Your task to perform on an android device: Open the calendar app, open the side menu, and click the "Day" option Image 0: 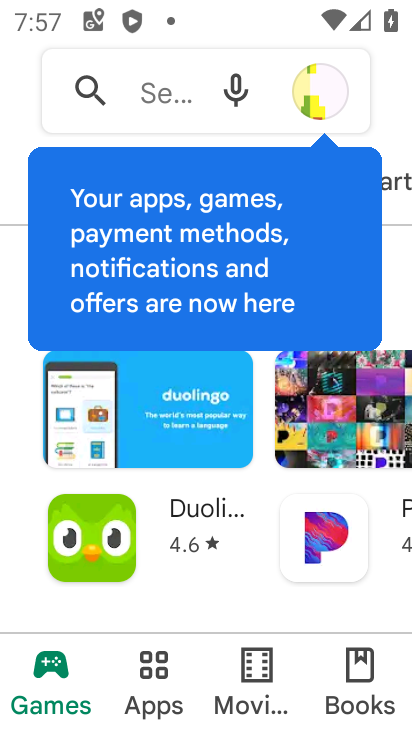
Step 0: press home button
Your task to perform on an android device: Open the calendar app, open the side menu, and click the "Day" option Image 1: 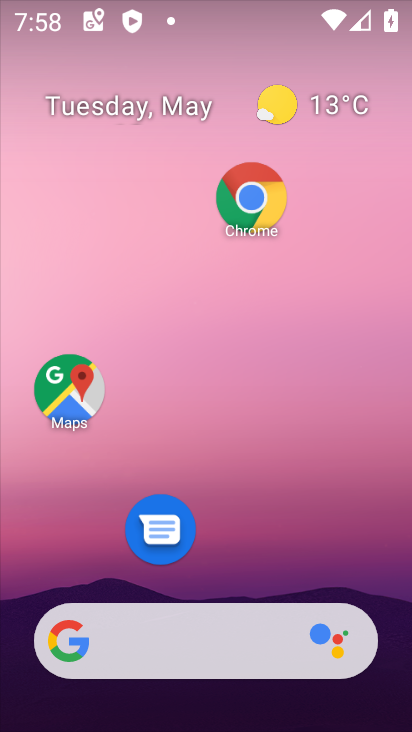
Step 1: drag from (314, 545) to (313, 33)
Your task to perform on an android device: Open the calendar app, open the side menu, and click the "Day" option Image 2: 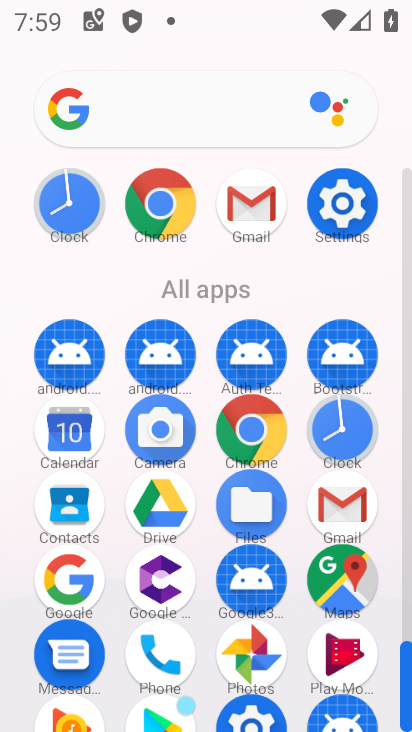
Step 2: click (72, 421)
Your task to perform on an android device: Open the calendar app, open the side menu, and click the "Day" option Image 3: 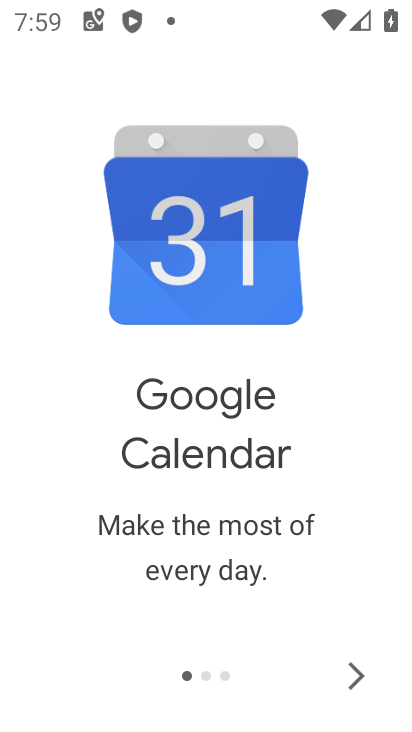
Step 3: click (353, 680)
Your task to perform on an android device: Open the calendar app, open the side menu, and click the "Day" option Image 4: 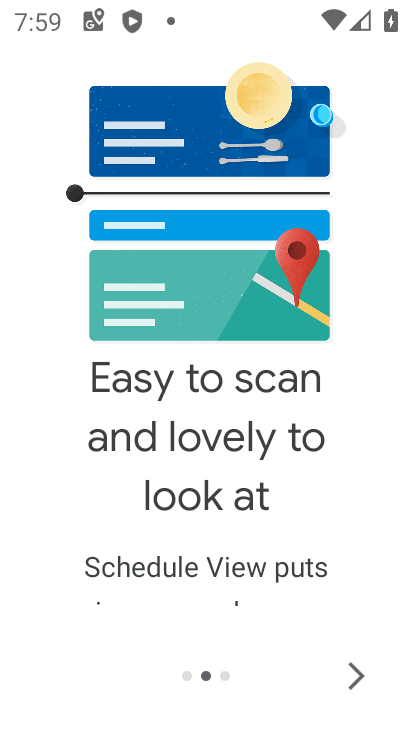
Step 4: click (353, 680)
Your task to perform on an android device: Open the calendar app, open the side menu, and click the "Day" option Image 5: 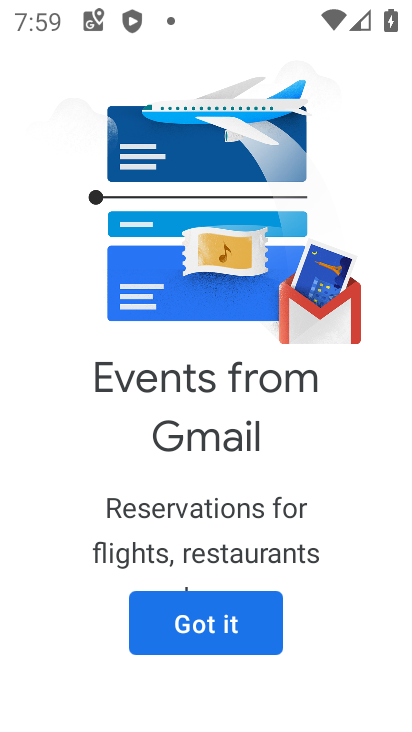
Step 5: click (219, 592)
Your task to perform on an android device: Open the calendar app, open the side menu, and click the "Day" option Image 6: 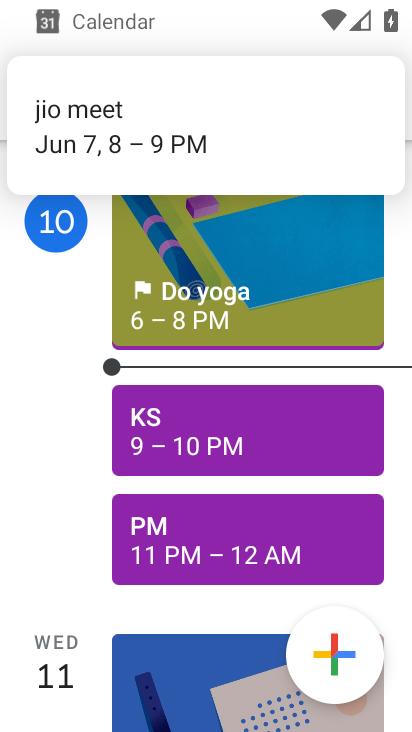
Step 6: click (94, 55)
Your task to perform on an android device: Open the calendar app, open the side menu, and click the "Day" option Image 7: 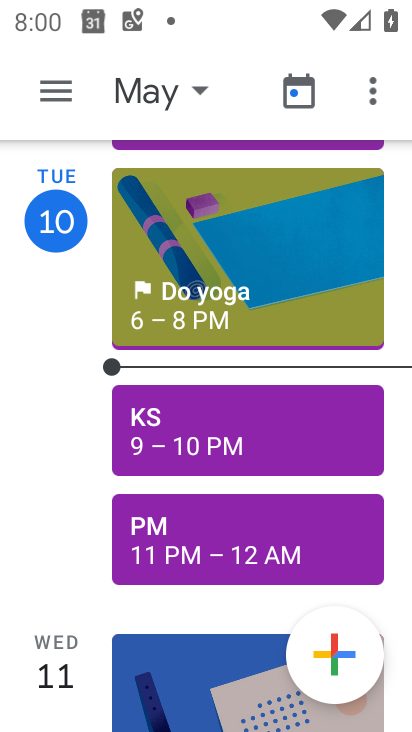
Step 7: click (66, 100)
Your task to perform on an android device: Open the calendar app, open the side menu, and click the "Day" option Image 8: 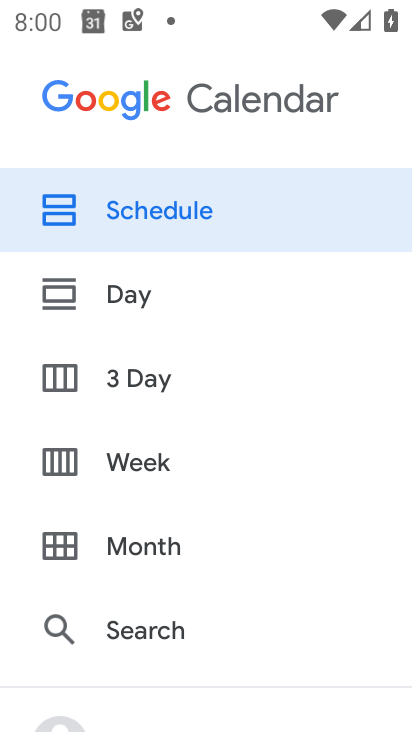
Step 8: click (82, 323)
Your task to perform on an android device: Open the calendar app, open the side menu, and click the "Day" option Image 9: 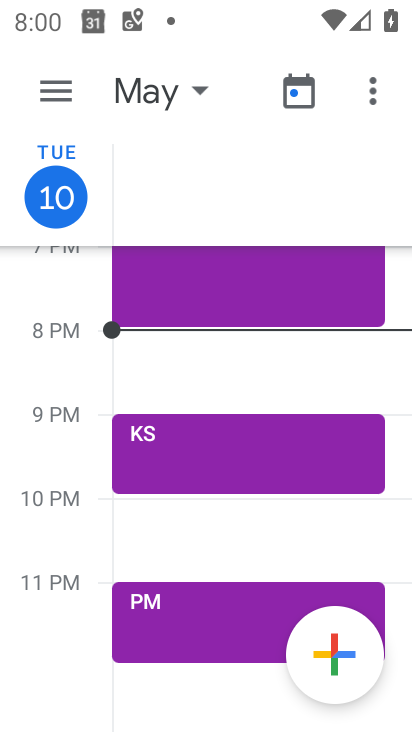
Step 9: task complete